Your task to perform on an android device: Open display settings Image 0: 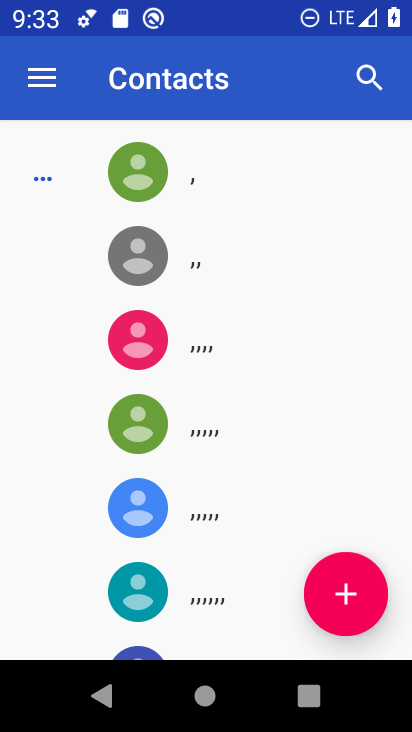
Step 0: press home button
Your task to perform on an android device: Open display settings Image 1: 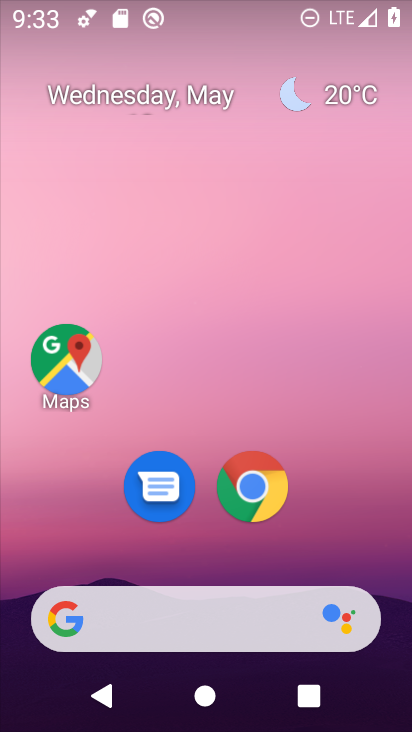
Step 1: drag from (399, 616) to (326, 99)
Your task to perform on an android device: Open display settings Image 2: 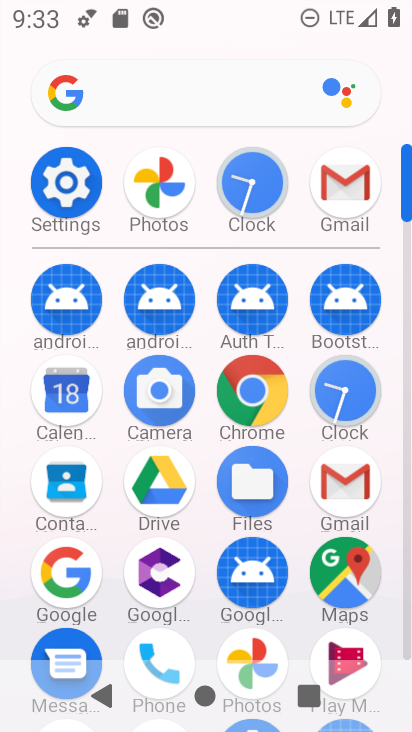
Step 2: click (407, 641)
Your task to perform on an android device: Open display settings Image 3: 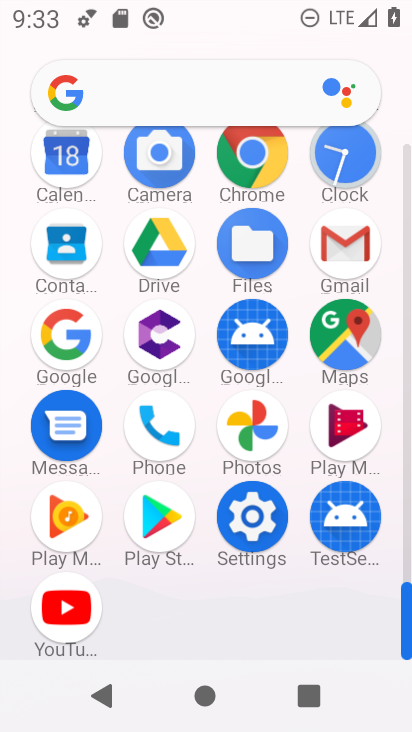
Step 3: click (252, 518)
Your task to perform on an android device: Open display settings Image 4: 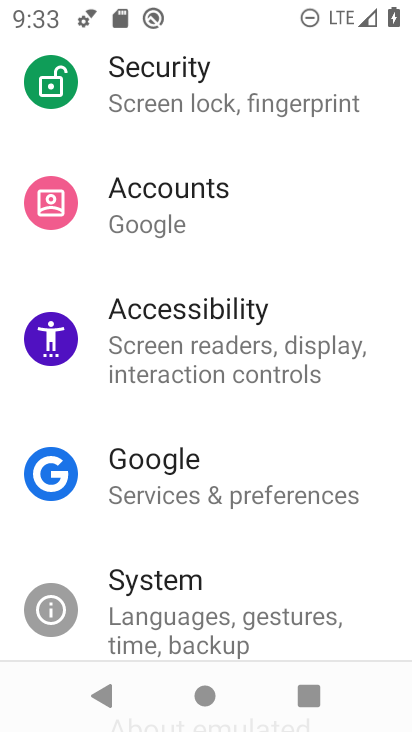
Step 4: drag from (366, 220) to (347, 555)
Your task to perform on an android device: Open display settings Image 5: 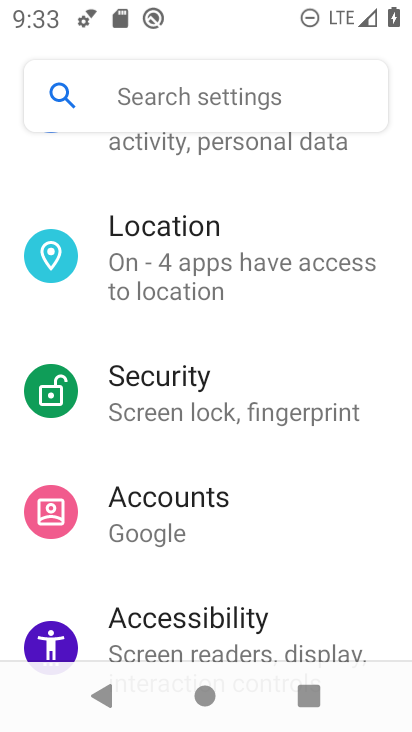
Step 5: drag from (347, 168) to (333, 541)
Your task to perform on an android device: Open display settings Image 6: 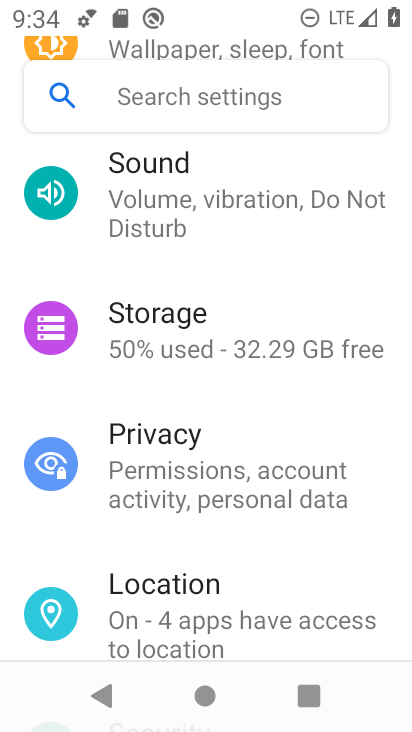
Step 6: drag from (347, 220) to (319, 534)
Your task to perform on an android device: Open display settings Image 7: 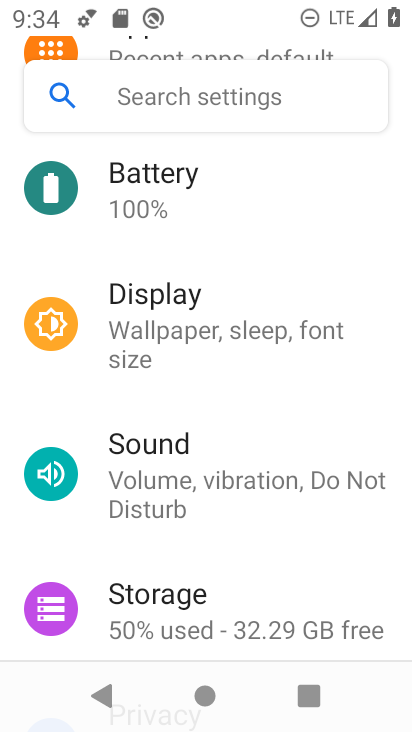
Step 7: click (132, 316)
Your task to perform on an android device: Open display settings Image 8: 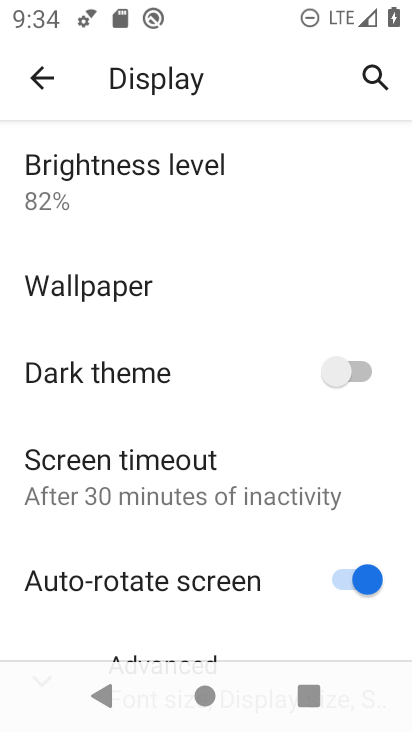
Step 8: drag from (176, 543) to (236, 145)
Your task to perform on an android device: Open display settings Image 9: 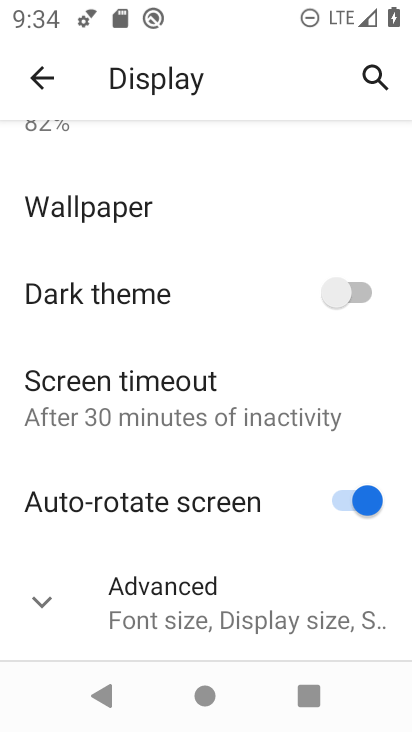
Step 9: click (42, 598)
Your task to perform on an android device: Open display settings Image 10: 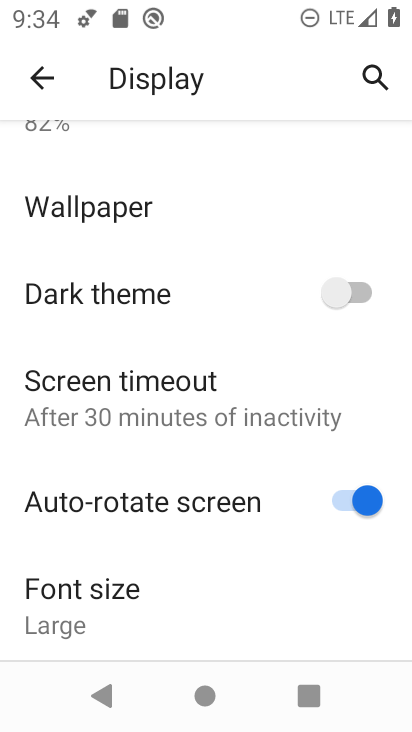
Step 10: task complete